Your task to perform on an android device: move a message to another label in the gmail app Image 0: 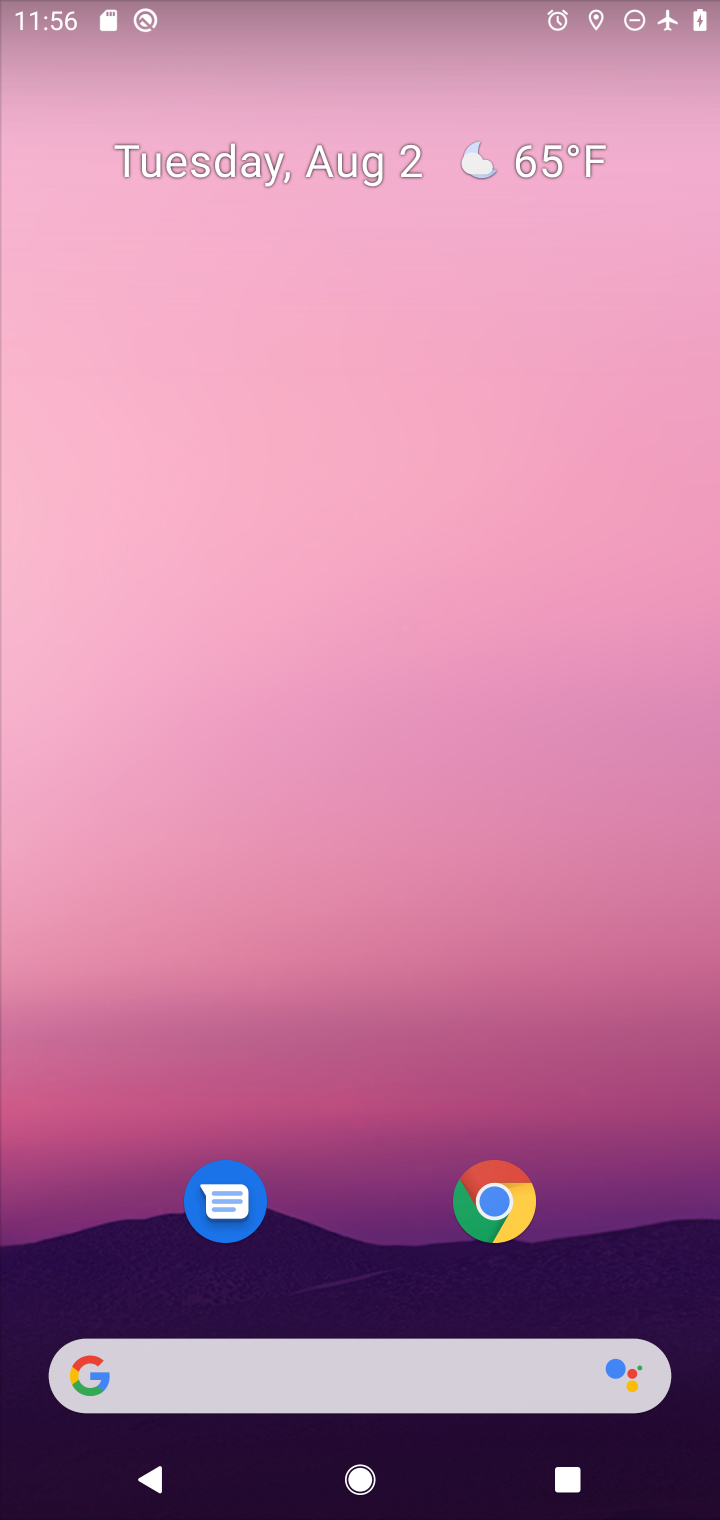
Step 0: drag from (407, 1296) to (333, 151)
Your task to perform on an android device: move a message to another label in the gmail app Image 1: 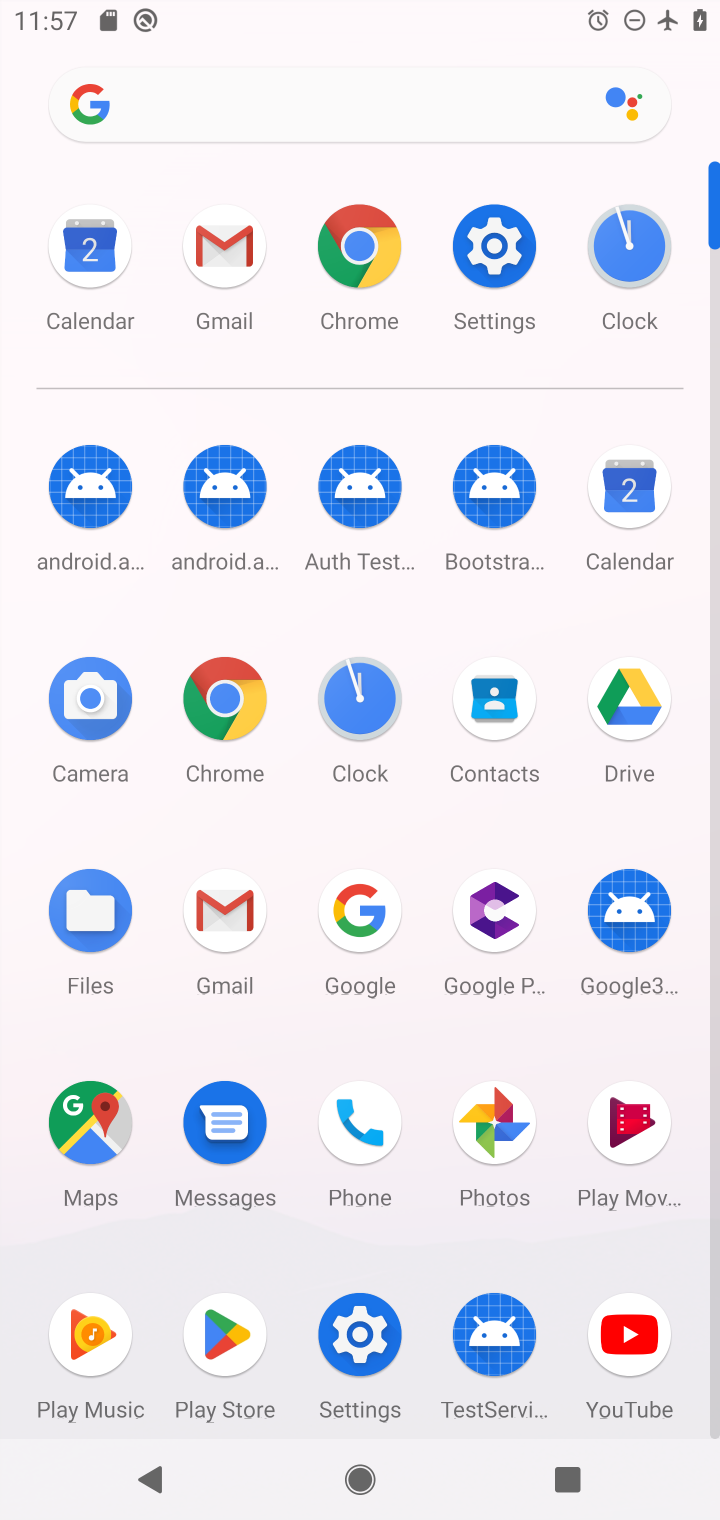
Step 1: click (228, 916)
Your task to perform on an android device: move a message to another label in the gmail app Image 2: 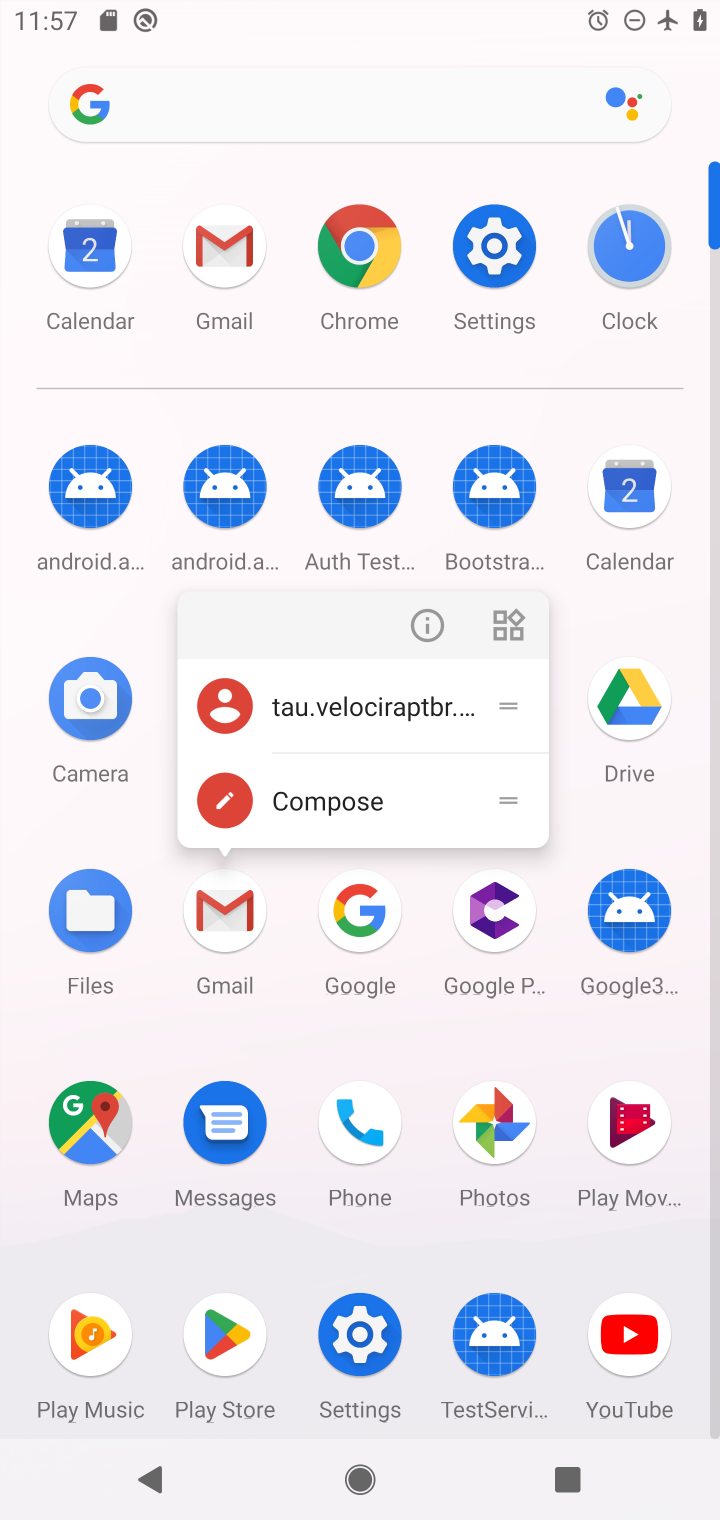
Step 2: click (214, 925)
Your task to perform on an android device: move a message to another label in the gmail app Image 3: 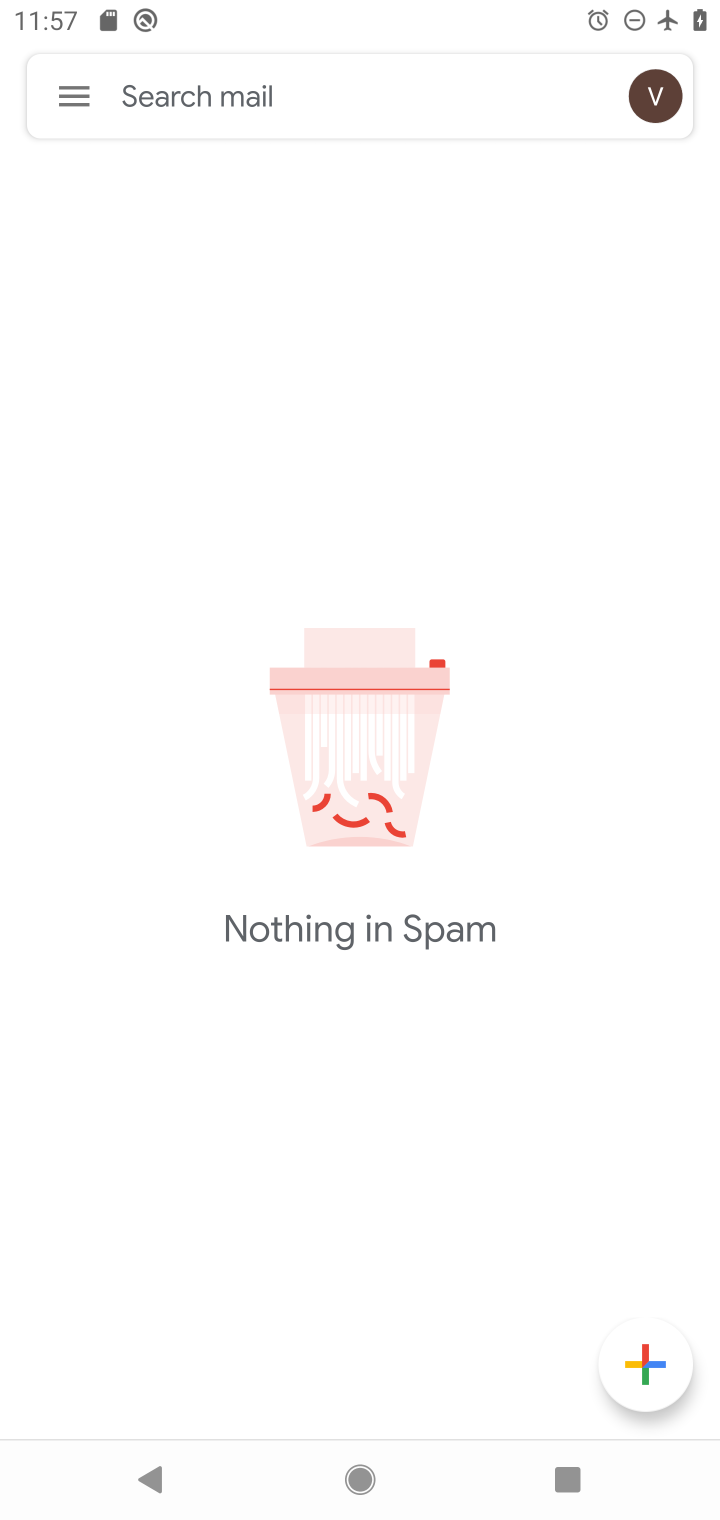
Step 3: task complete